Your task to perform on an android device: toggle sleep mode Image 0: 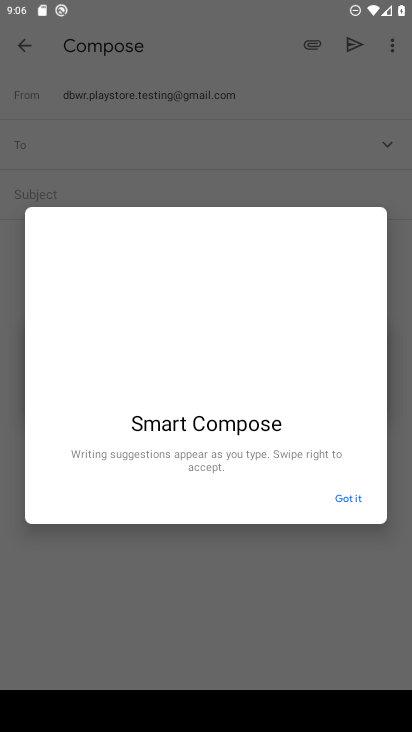
Step 0: press home button
Your task to perform on an android device: toggle sleep mode Image 1: 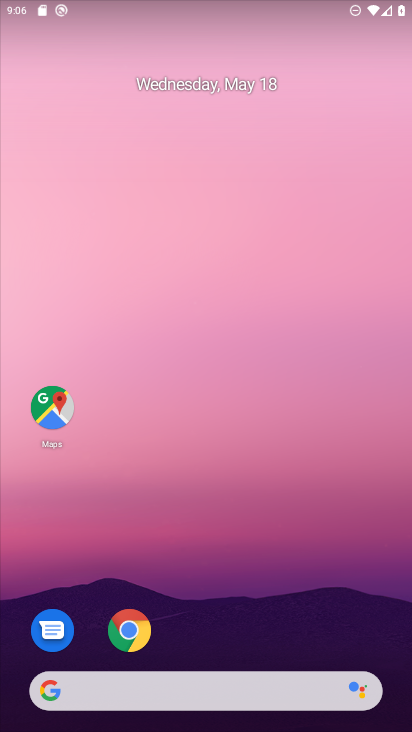
Step 1: drag from (199, 687) to (135, 5)
Your task to perform on an android device: toggle sleep mode Image 2: 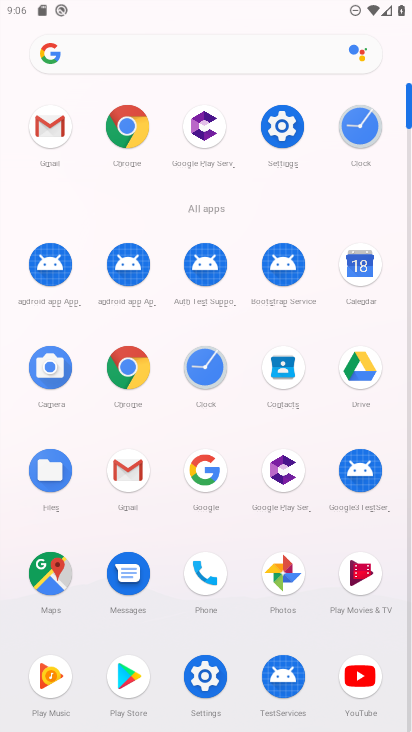
Step 2: click (294, 130)
Your task to perform on an android device: toggle sleep mode Image 3: 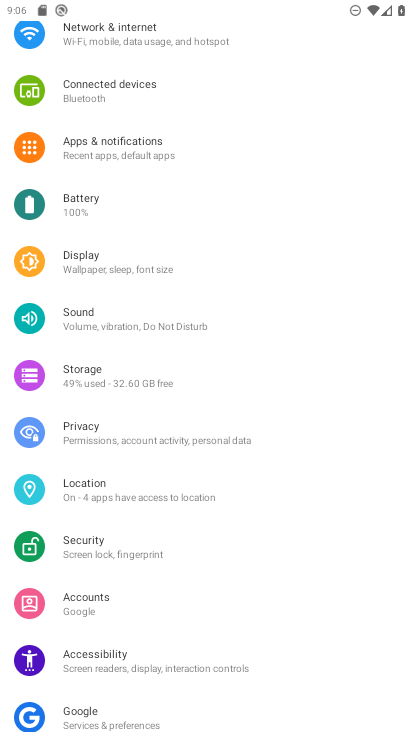
Step 3: click (165, 272)
Your task to perform on an android device: toggle sleep mode Image 4: 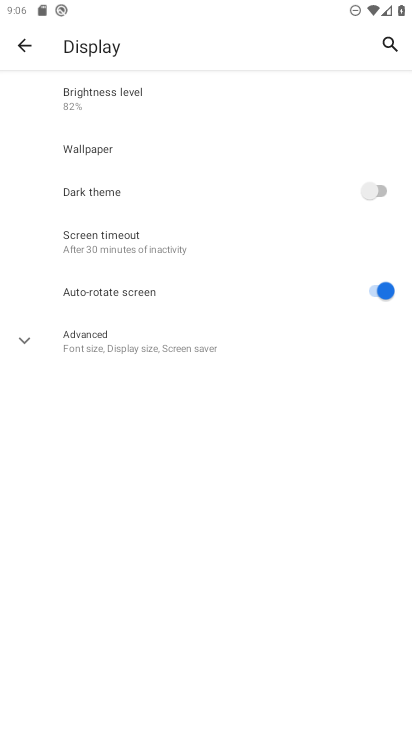
Step 4: click (166, 334)
Your task to perform on an android device: toggle sleep mode Image 5: 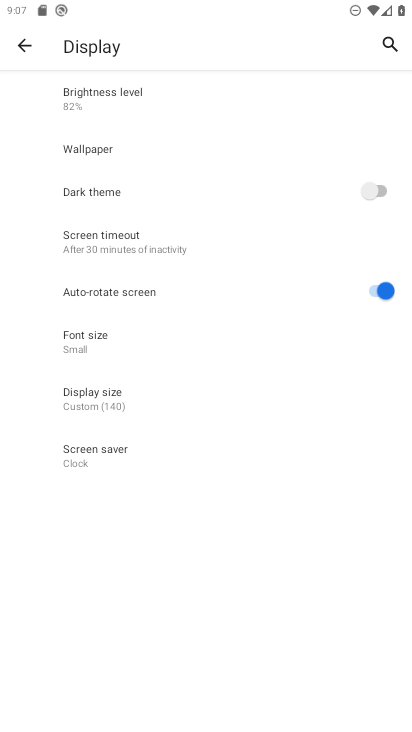
Step 5: task complete